Your task to perform on an android device: open sync settings in chrome Image 0: 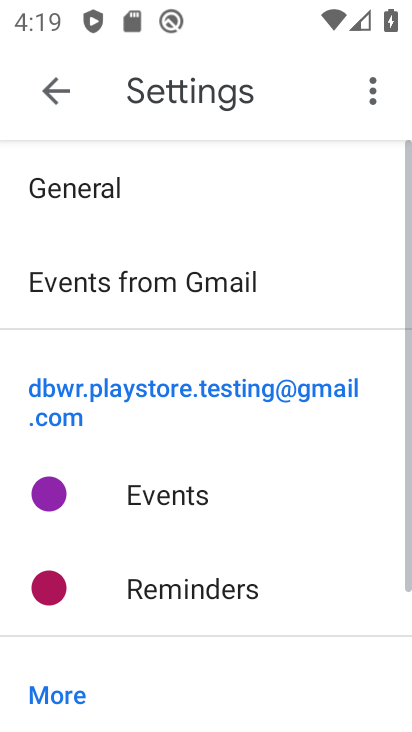
Step 0: drag from (175, 552) to (239, 116)
Your task to perform on an android device: open sync settings in chrome Image 1: 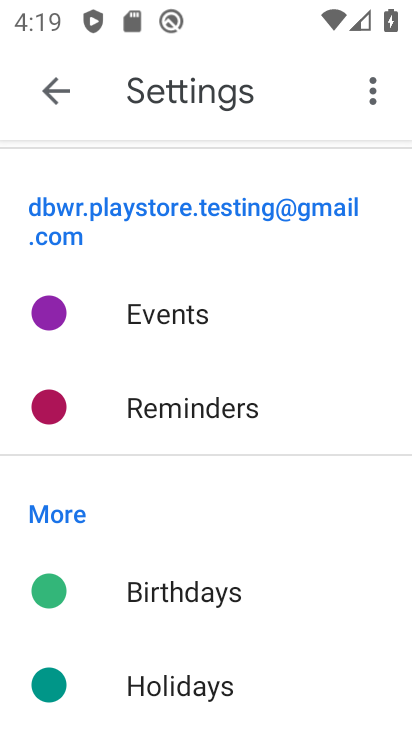
Step 1: press back button
Your task to perform on an android device: open sync settings in chrome Image 2: 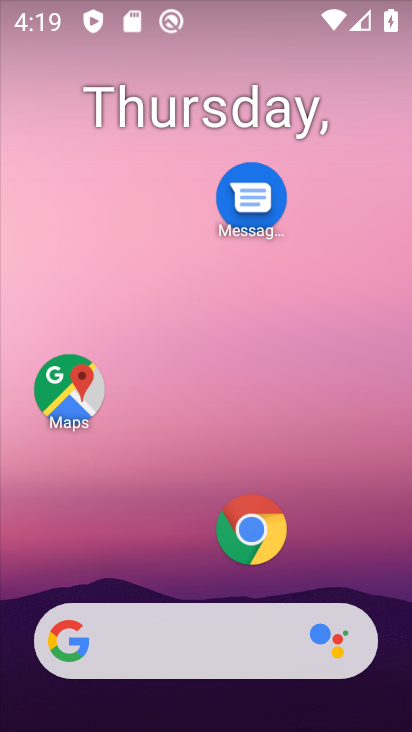
Step 2: click (240, 529)
Your task to perform on an android device: open sync settings in chrome Image 3: 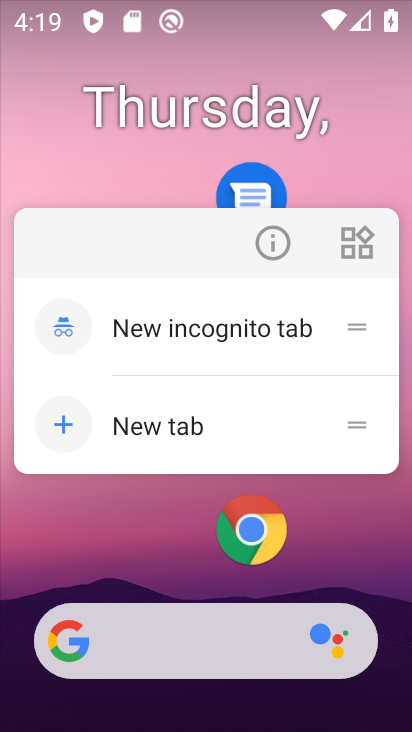
Step 3: click (258, 528)
Your task to perform on an android device: open sync settings in chrome Image 4: 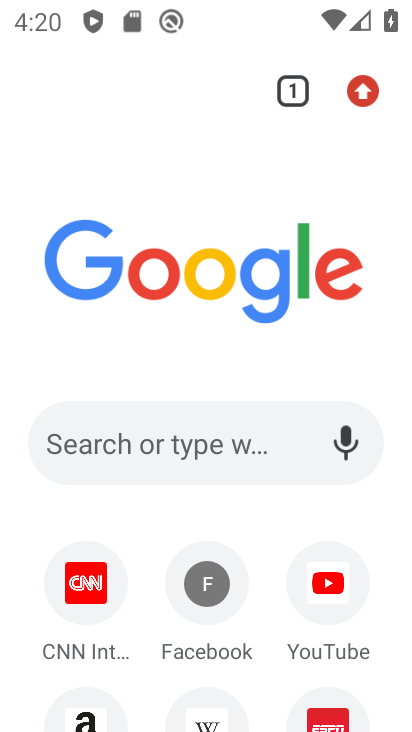
Step 4: drag from (352, 95) to (146, 548)
Your task to perform on an android device: open sync settings in chrome Image 5: 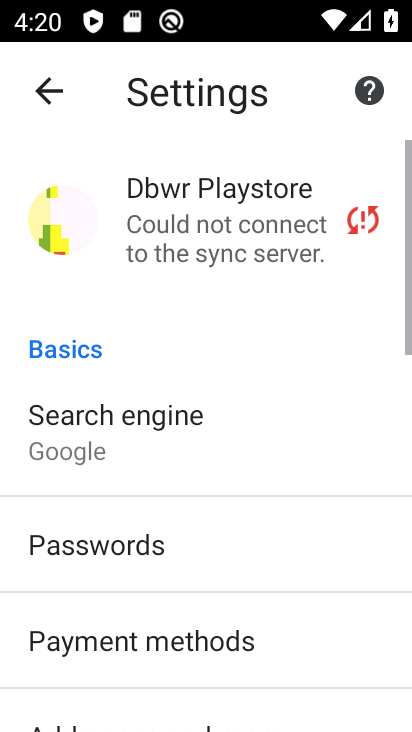
Step 5: click (213, 219)
Your task to perform on an android device: open sync settings in chrome Image 6: 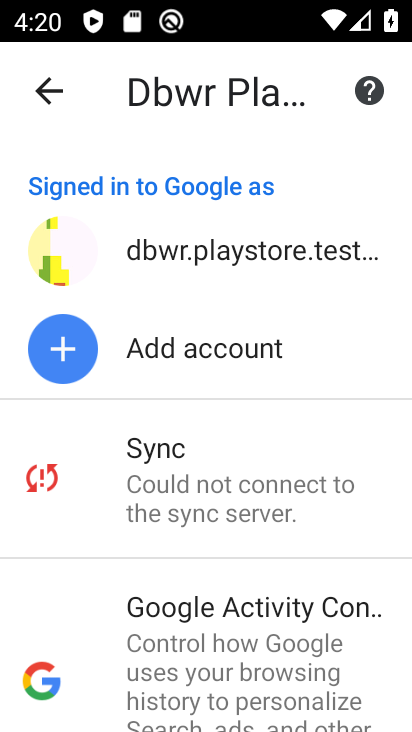
Step 6: task complete